Your task to perform on an android device: Open Google Chrome Image 0: 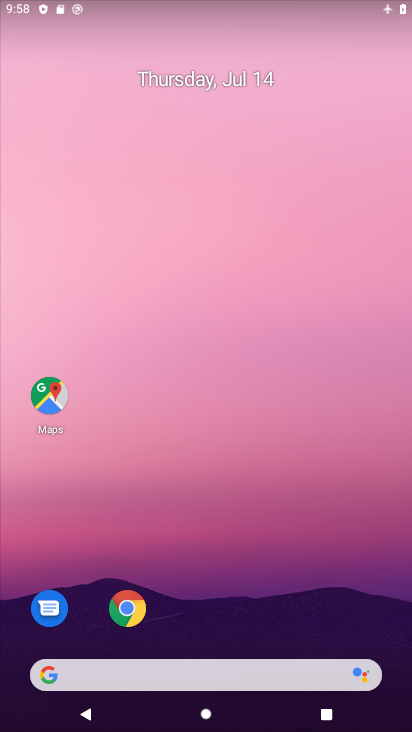
Step 0: click (132, 611)
Your task to perform on an android device: Open Google Chrome Image 1: 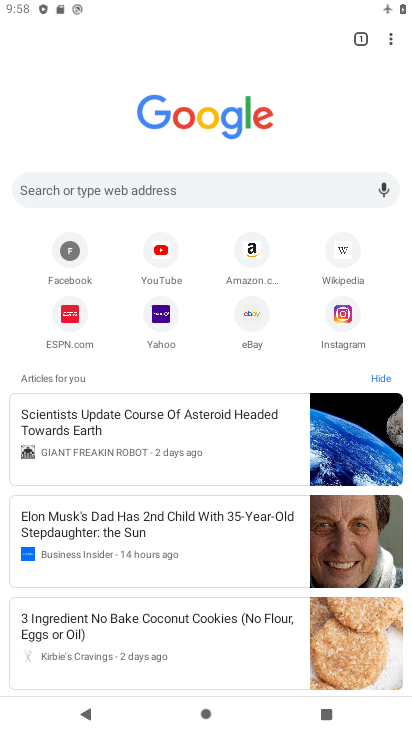
Step 1: task complete